Your task to perform on an android device: Go to location settings Image 0: 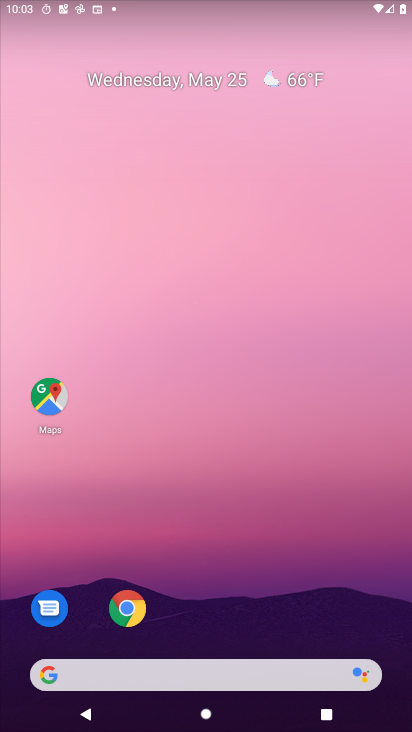
Step 0: drag from (227, 707) to (227, 167)
Your task to perform on an android device: Go to location settings Image 1: 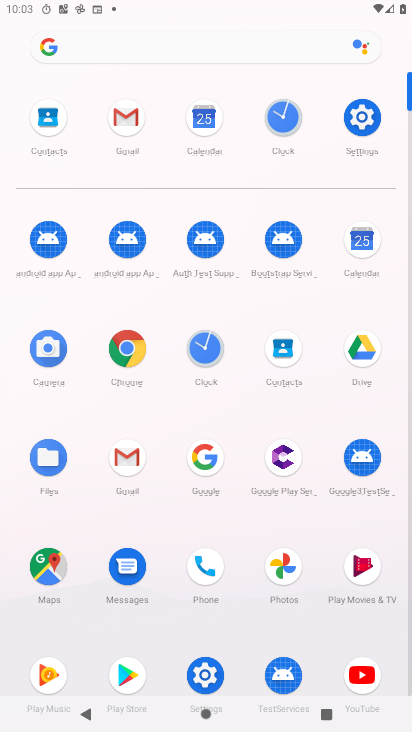
Step 1: click (361, 116)
Your task to perform on an android device: Go to location settings Image 2: 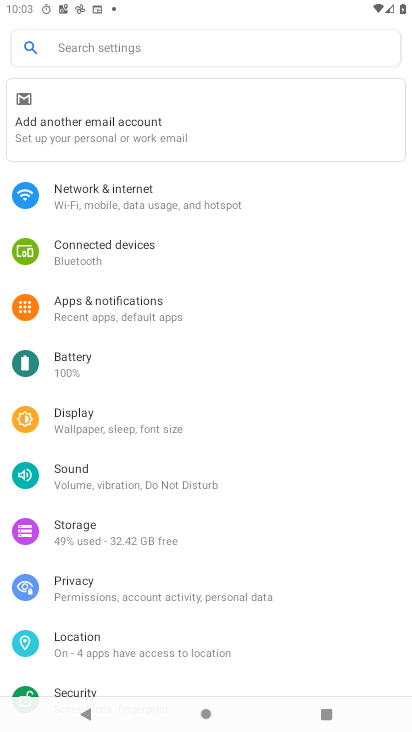
Step 2: click (85, 631)
Your task to perform on an android device: Go to location settings Image 3: 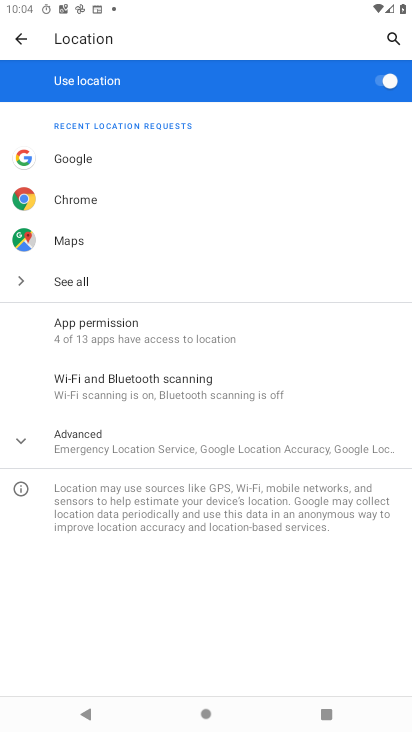
Step 3: task complete